Your task to perform on an android device: Open Google Chrome Image 0: 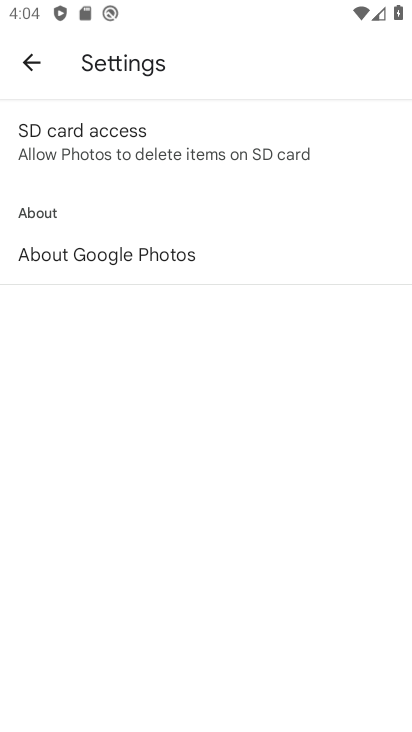
Step 0: press home button
Your task to perform on an android device: Open Google Chrome Image 1: 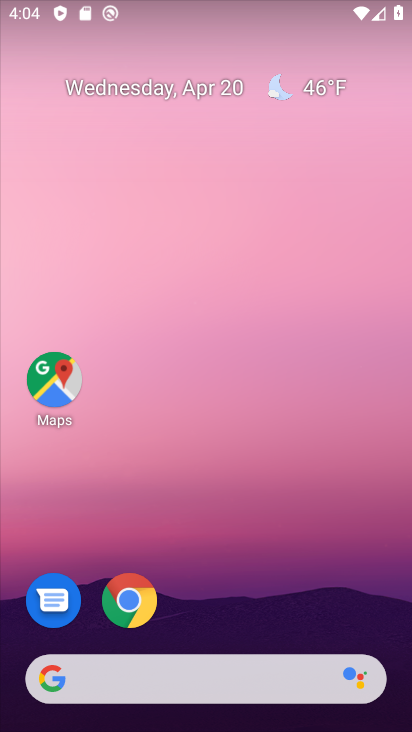
Step 1: click (131, 601)
Your task to perform on an android device: Open Google Chrome Image 2: 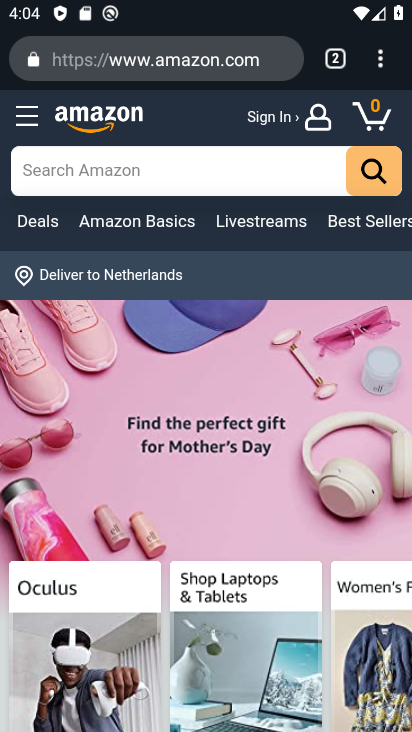
Step 2: task complete